Your task to perform on an android device: find which apps use the phone's location Image 0: 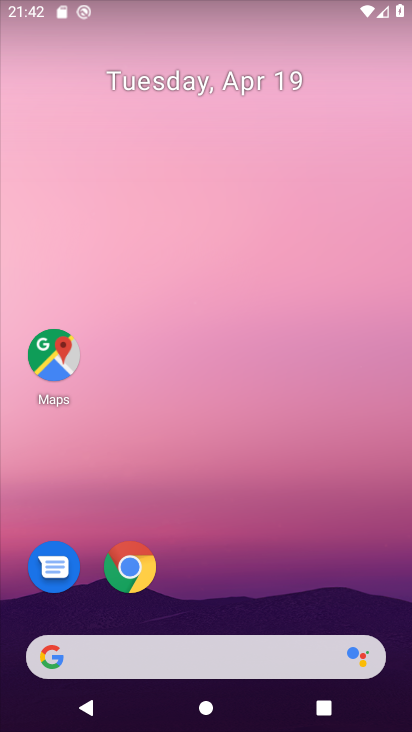
Step 0: drag from (220, 594) to (238, 46)
Your task to perform on an android device: find which apps use the phone's location Image 1: 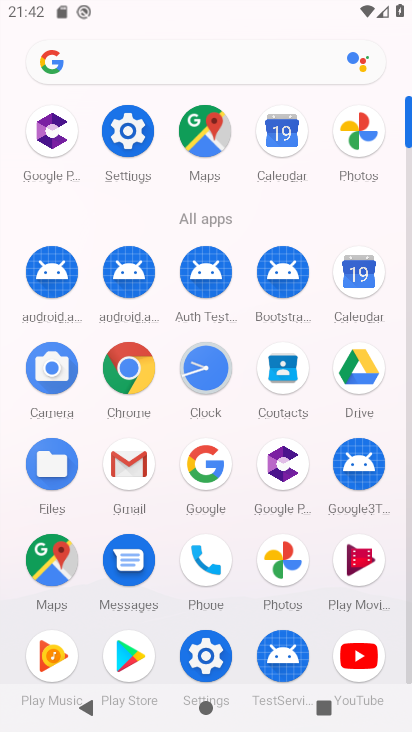
Step 1: click (137, 142)
Your task to perform on an android device: find which apps use the phone's location Image 2: 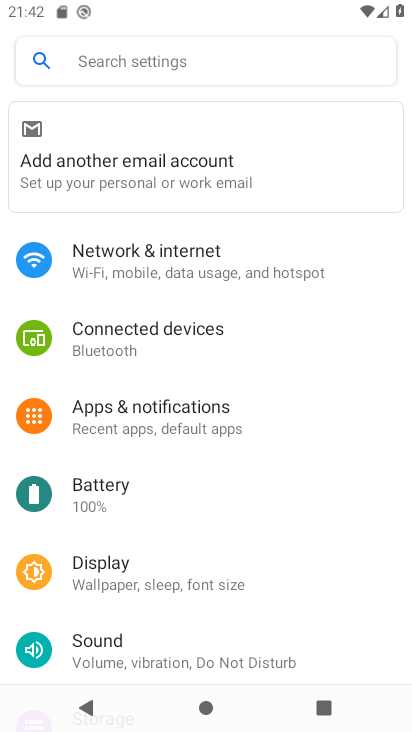
Step 2: drag from (161, 535) to (158, 449)
Your task to perform on an android device: find which apps use the phone's location Image 3: 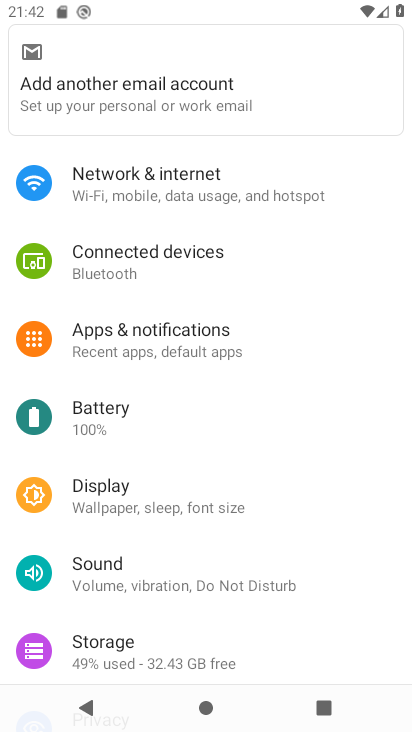
Step 3: drag from (182, 551) to (196, 461)
Your task to perform on an android device: find which apps use the phone's location Image 4: 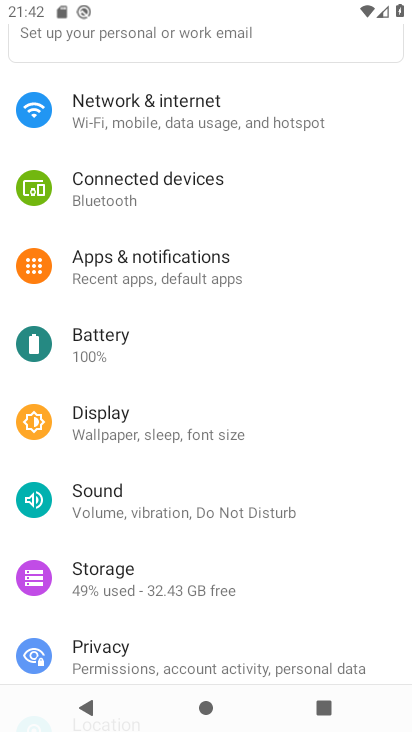
Step 4: drag from (160, 610) to (168, 532)
Your task to perform on an android device: find which apps use the phone's location Image 5: 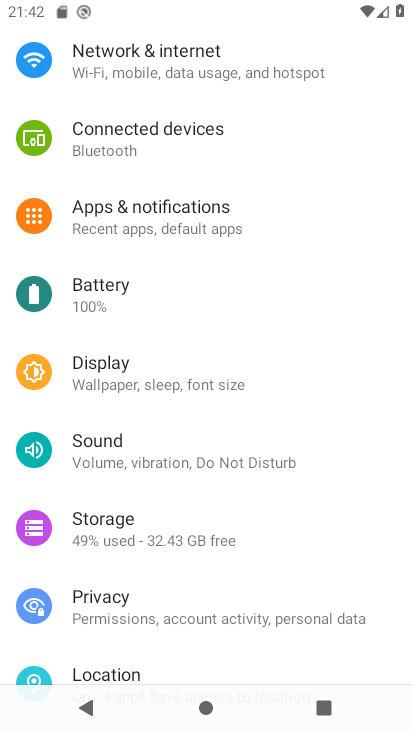
Step 5: drag from (145, 635) to (169, 549)
Your task to perform on an android device: find which apps use the phone's location Image 6: 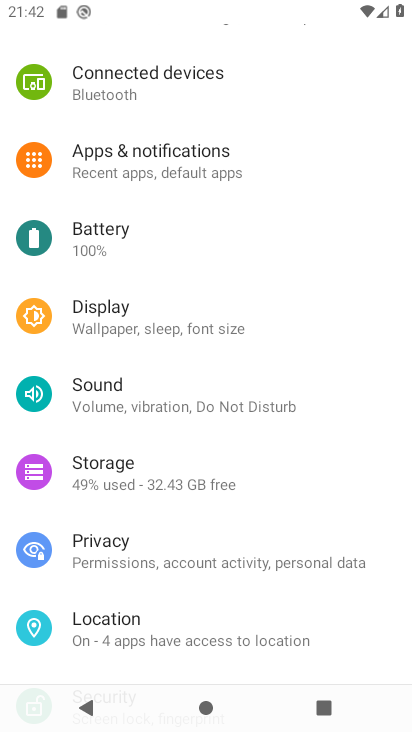
Step 6: click (147, 628)
Your task to perform on an android device: find which apps use the phone's location Image 7: 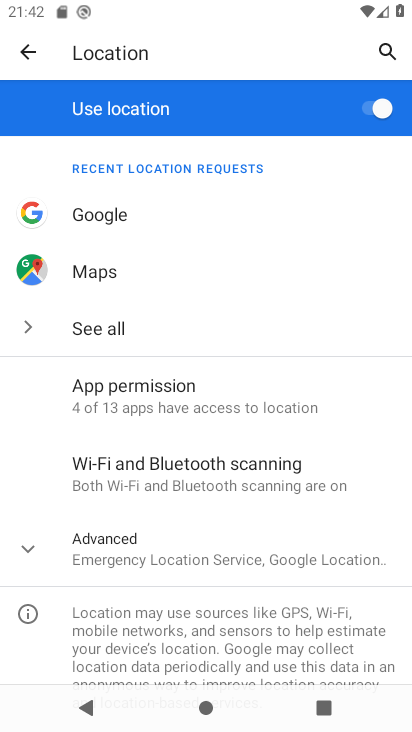
Step 7: click (170, 394)
Your task to perform on an android device: find which apps use the phone's location Image 8: 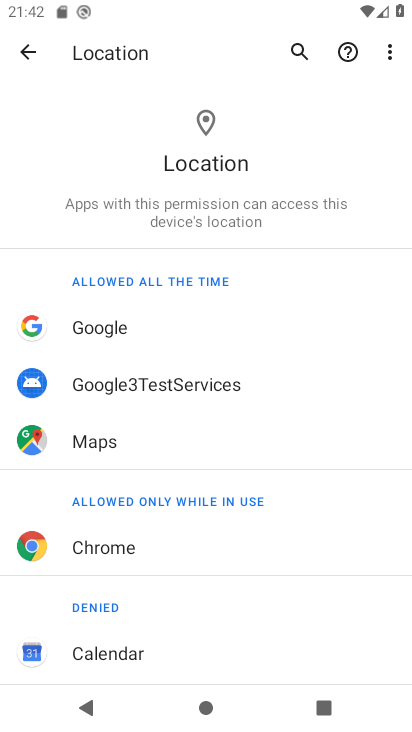
Step 8: task complete